Your task to perform on an android device: change notifications settings Image 0: 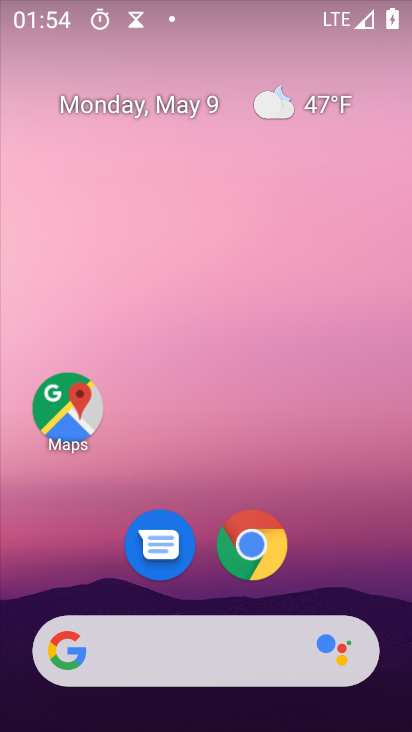
Step 0: drag from (362, 622) to (286, 1)
Your task to perform on an android device: change notifications settings Image 1: 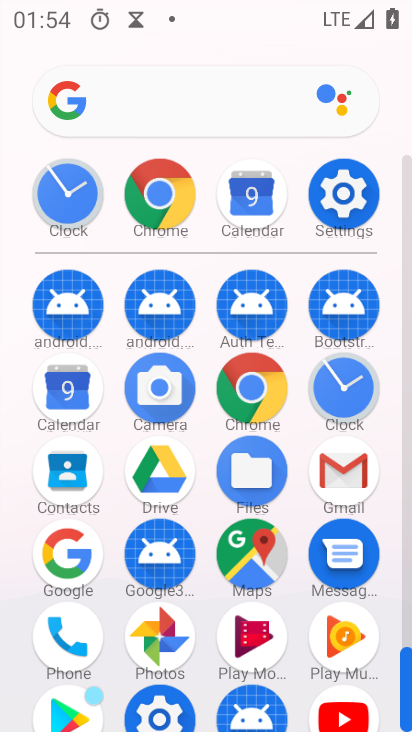
Step 1: click (362, 198)
Your task to perform on an android device: change notifications settings Image 2: 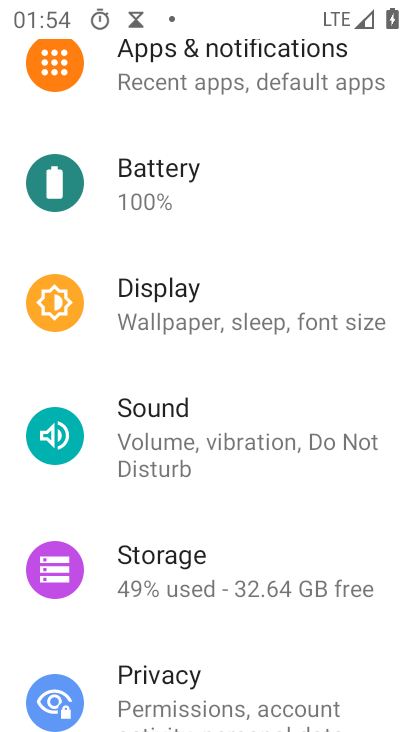
Step 2: click (297, 92)
Your task to perform on an android device: change notifications settings Image 3: 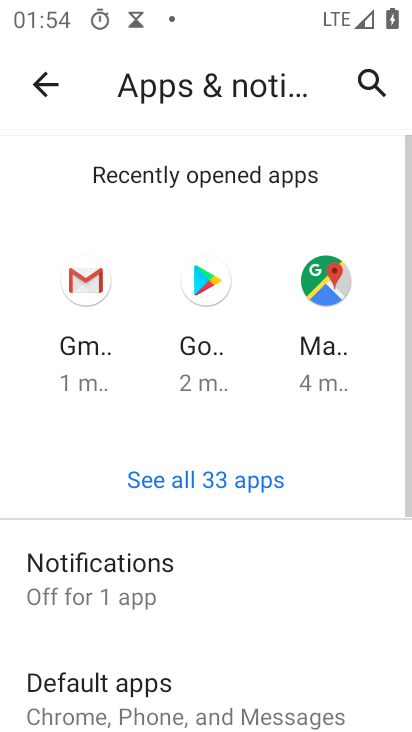
Step 3: drag from (288, 542) to (211, 79)
Your task to perform on an android device: change notifications settings Image 4: 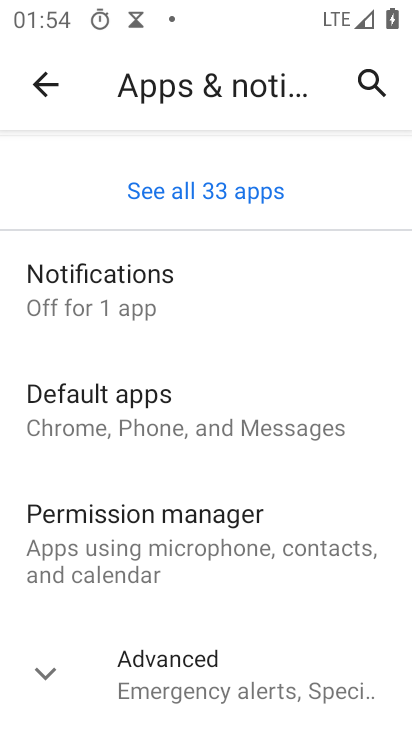
Step 4: click (293, 685)
Your task to perform on an android device: change notifications settings Image 5: 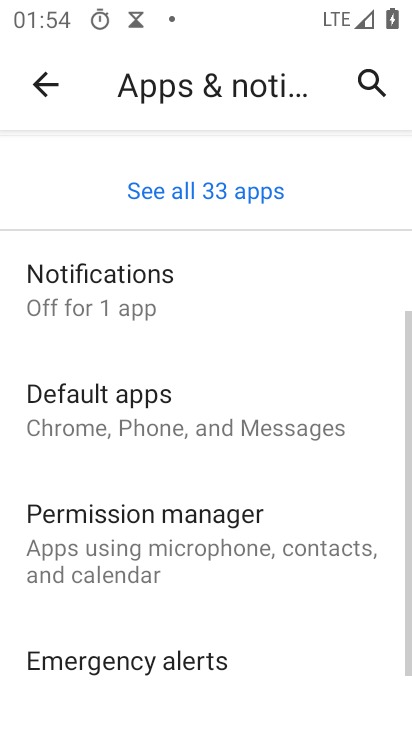
Step 5: click (174, 317)
Your task to perform on an android device: change notifications settings Image 6: 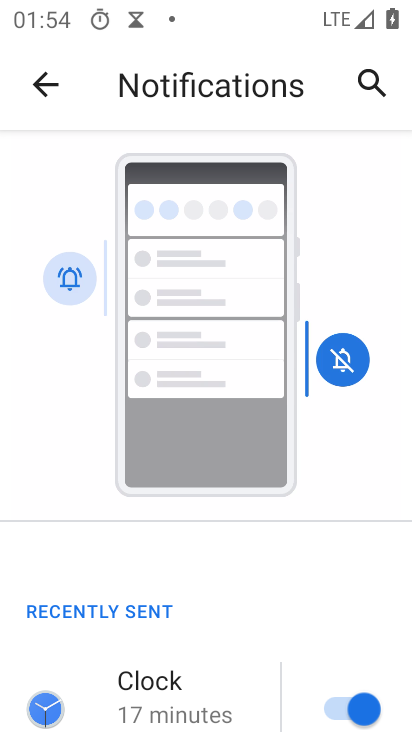
Step 6: drag from (262, 634) to (352, 3)
Your task to perform on an android device: change notifications settings Image 7: 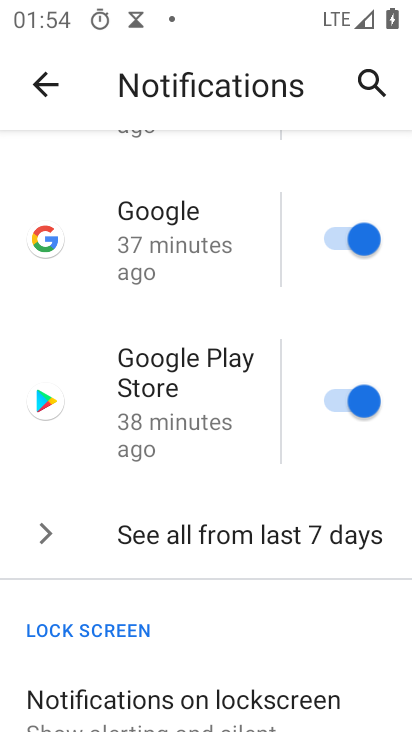
Step 7: drag from (251, 689) to (246, 170)
Your task to perform on an android device: change notifications settings Image 8: 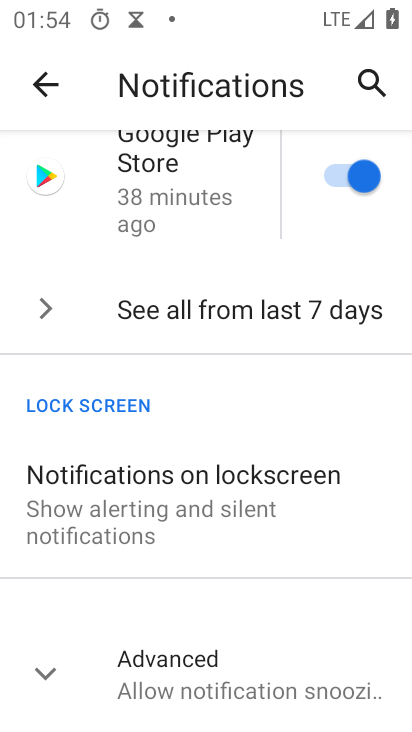
Step 8: click (216, 680)
Your task to perform on an android device: change notifications settings Image 9: 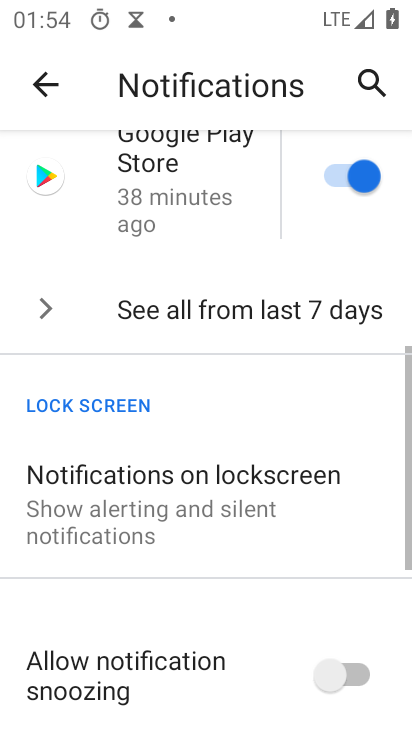
Step 9: drag from (225, 711) to (227, 163)
Your task to perform on an android device: change notifications settings Image 10: 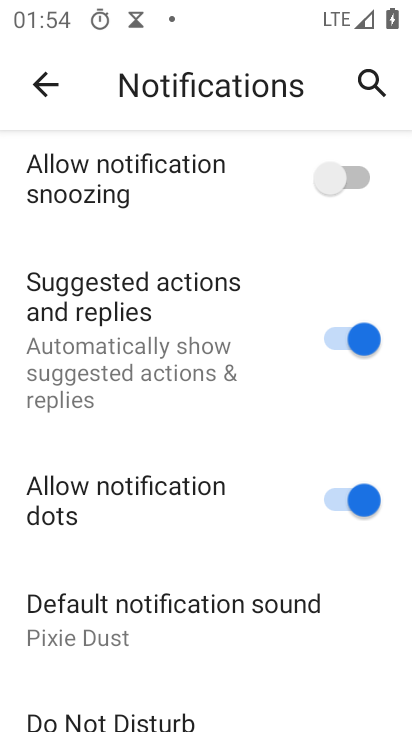
Step 10: drag from (206, 205) to (268, 723)
Your task to perform on an android device: change notifications settings Image 11: 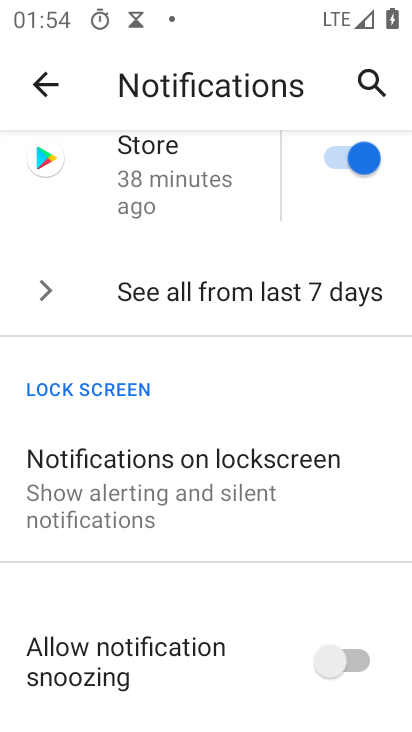
Step 11: click (299, 510)
Your task to perform on an android device: change notifications settings Image 12: 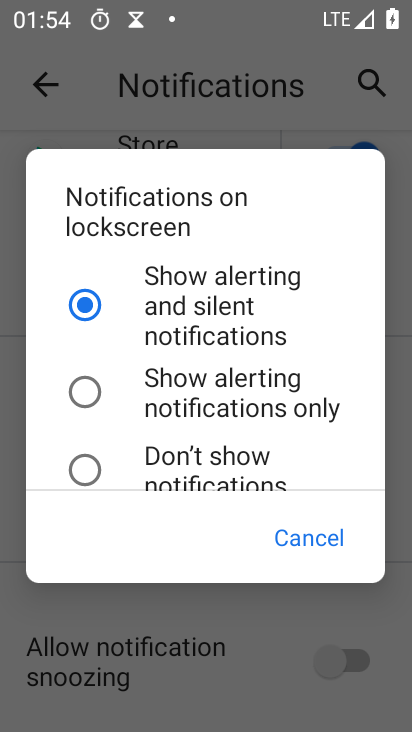
Step 12: task complete